Your task to perform on an android device: What's the weather going to be this weekend? Image 0: 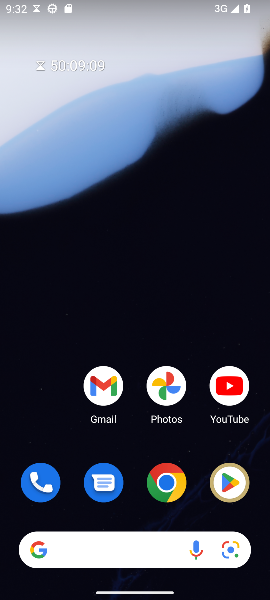
Step 0: drag from (176, 488) to (195, 37)
Your task to perform on an android device: What's the weather going to be this weekend? Image 1: 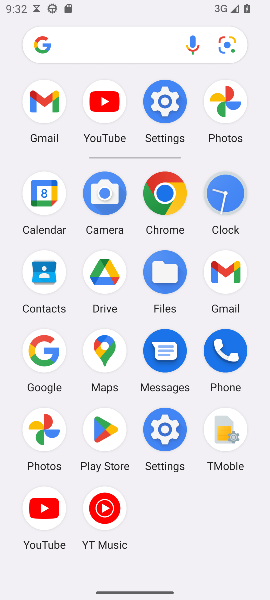
Step 1: click (38, 352)
Your task to perform on an android device: What's the weather going to be this weekend? Image 2: 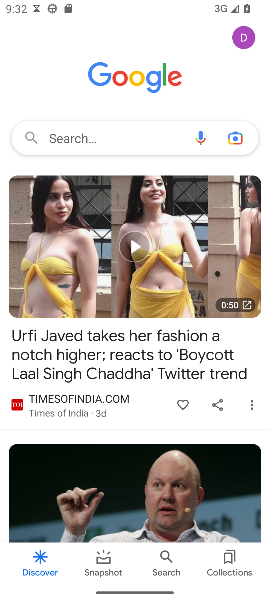
Step 2: click (132, 140)
Your task to perform on an android device: What's the weather going to be this weekend? Image 3: 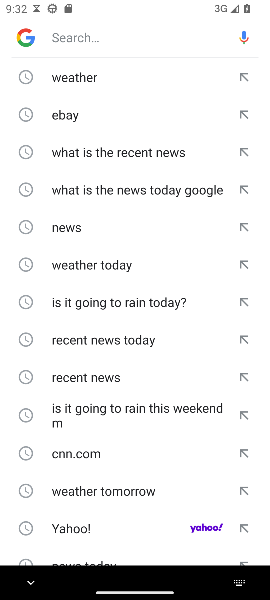
Step 3: click (78, 75)
Your task to perform on an android device: What's the weather going to be this weekend? Image 4: 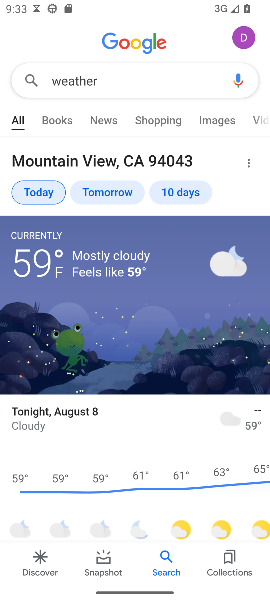
Step 4: click (178, 196)
Your task to perform on an android device: What's the weather going to be this weekend? Image 5: 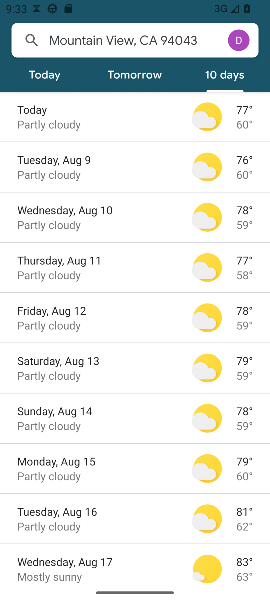
Step 5: task complete